Your task to perform on an android device: turn on location history Image 0: 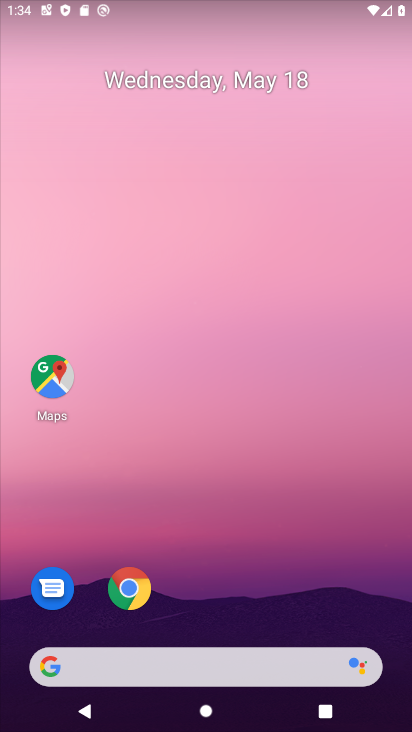
Step 0: drag from (367, 561) to (370, 114)
Your task to perform on an android device: turn on location history Image 1: 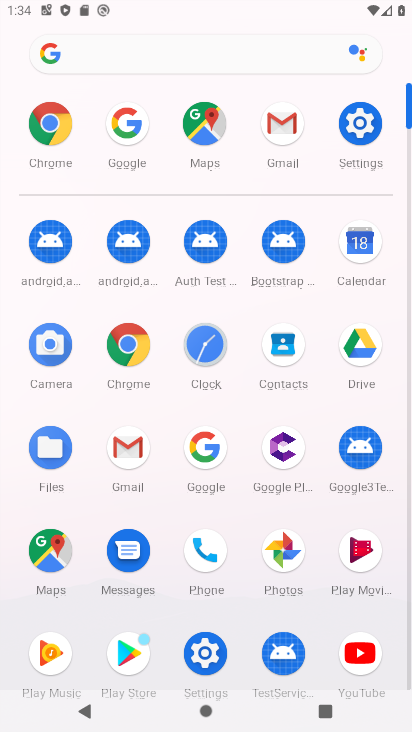
Step 1: click (361, 125)
Your task to perform on an android device: turn on location history Image 2: 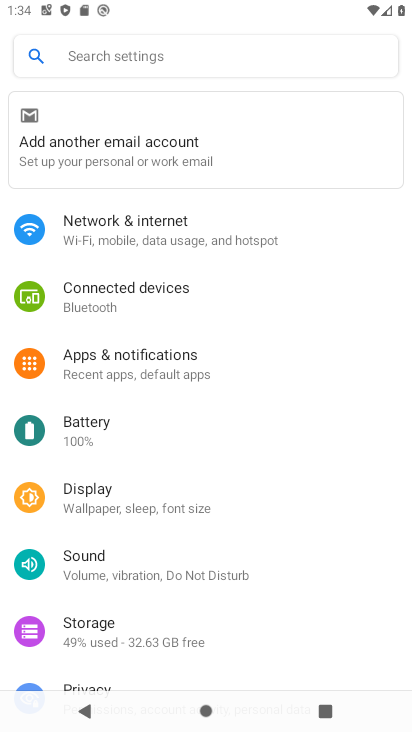
Step 2: drag from (373, 596) to (375, 479)
Your task to perform on an android device: turn on location history Image 3: 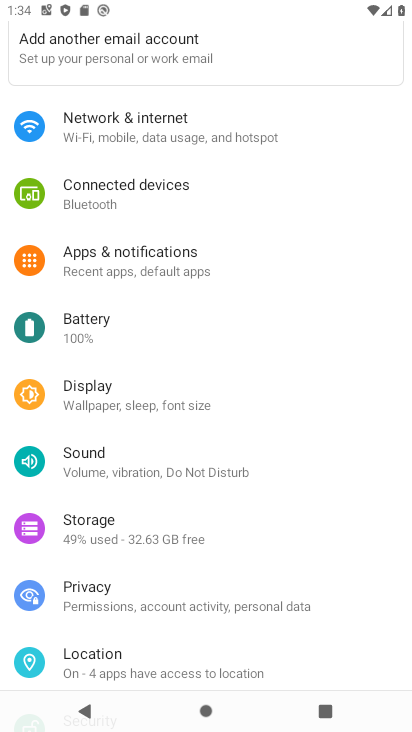
Step 3: drag from (370, 613) to (369, 481)
Your task to perform on an android device: turn on location history Image 4: 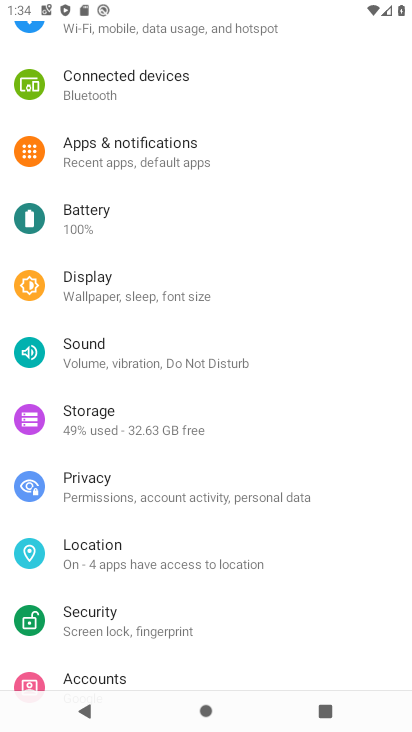
Step 4: drag from (359, 622) to (360, 505)
Your task to perform on an android device: turn on location history Image 5: 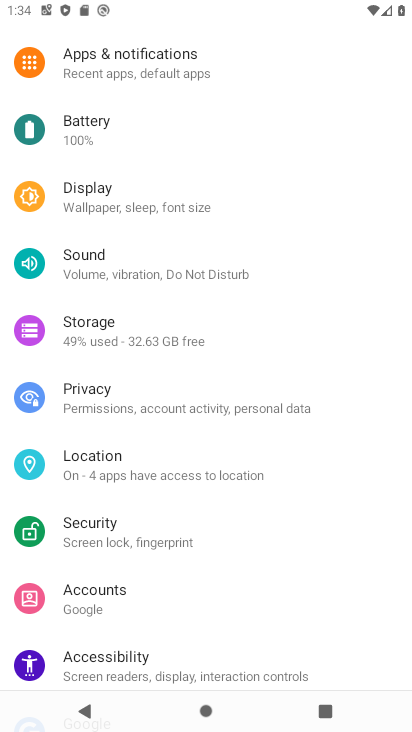
Step 5: drag from (324, 597) to (337, 415)
Your task to perform on an android device: turn on location history Image 6: 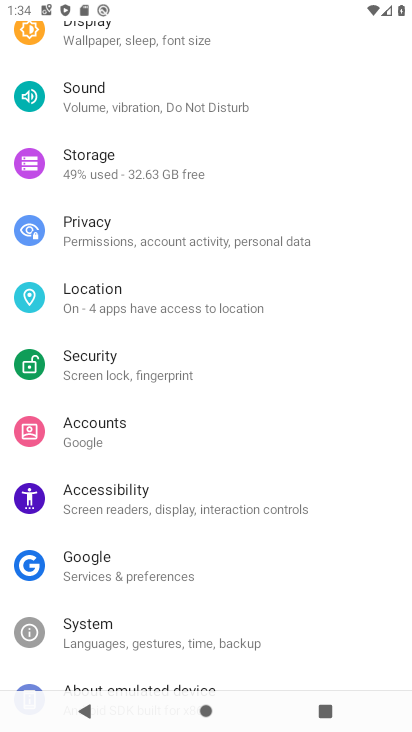
Step 6: click (120, 295)
Your task to perform on an android device: turn on location history Image 7: 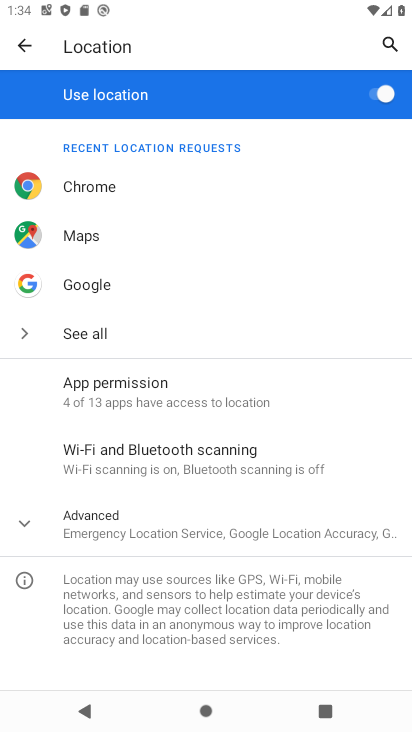
Step 7: click (323, 530)
Your task to perform on an android device: turn on location history Image 8: 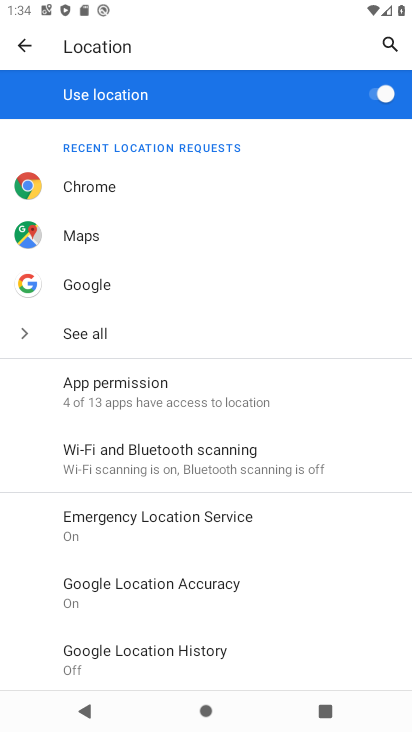
Step 8: drag from (332, 600) to (343, 440)
Your task to perform on an android device: turn on location history Image 9: 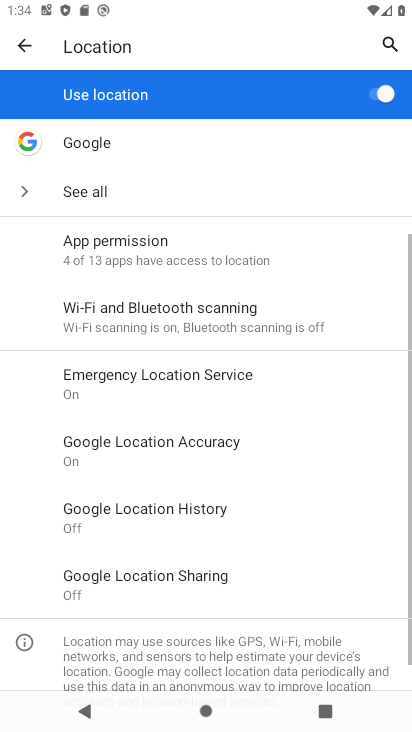
Step 9: drag from (319, 581) to (316, 466)
Your task to perform on an android device: turn on location history Image 10: 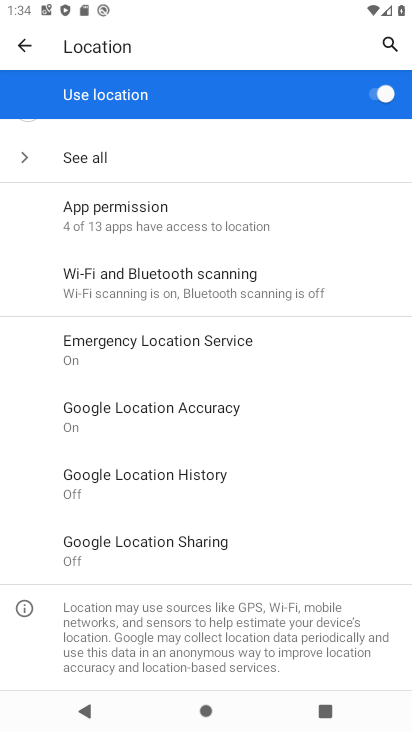
Step 10: click (157, 482)
Your task to perform on an android device: turn on location history Image 11: 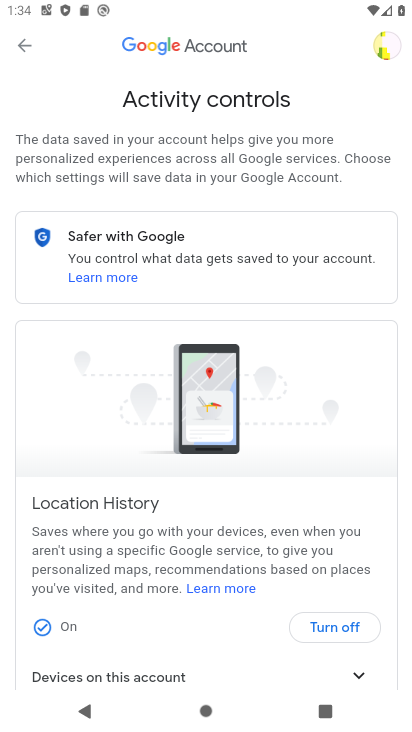
Step 11: task complete